Your task to perform on an android device: Add razer blade to the cart on target.com Image 0: 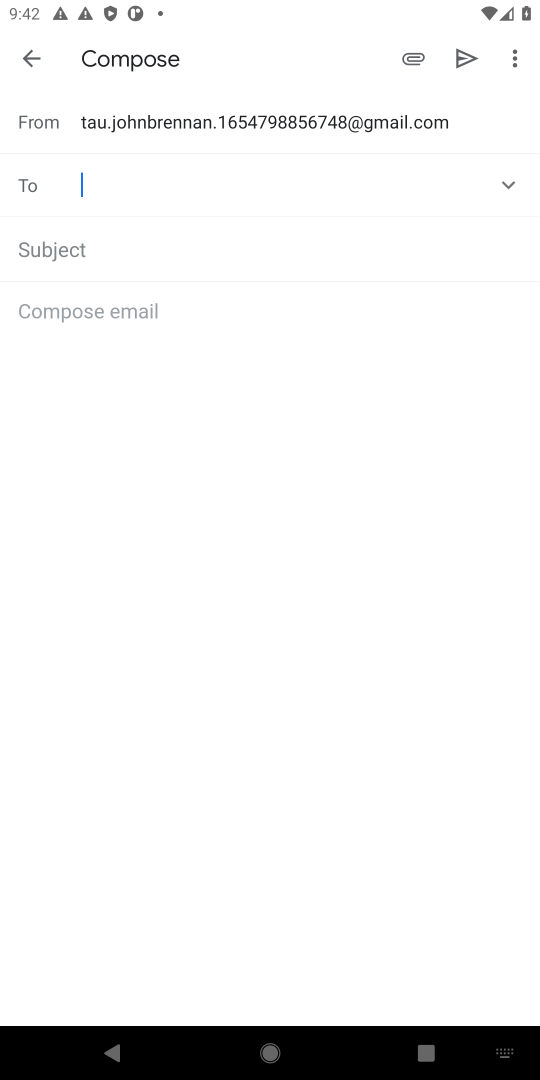
Step 0: press home button
Your task to perform on an android device: Add razer blade to the cart on target.com Image 1: 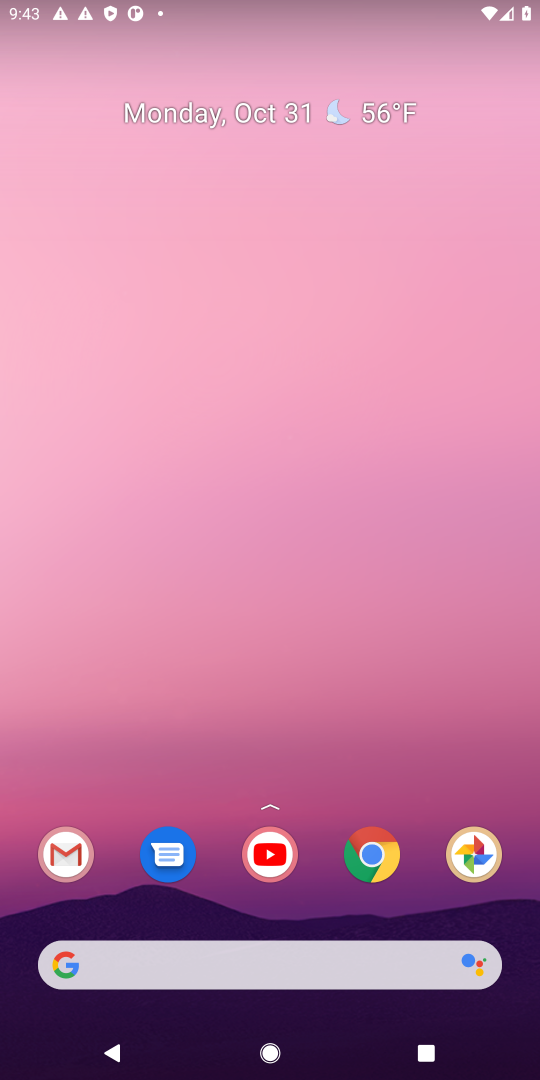
Step 1: click (281, 943)
Your task to perform on an android device: Add razer blade to the cart on target.com Image 2: 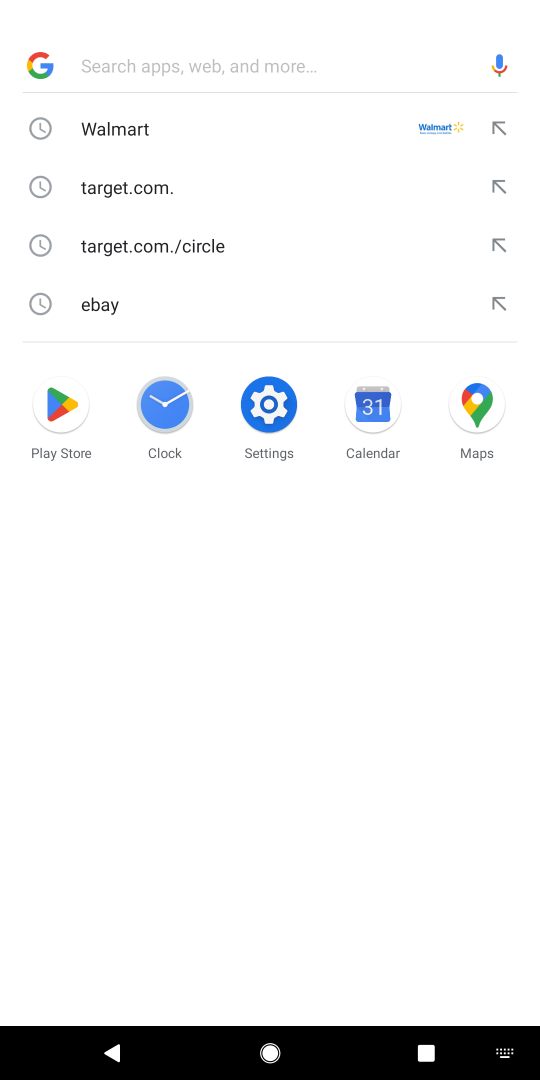
Step 2: type "razer blade"
Your task to perform on an android device: Add razer blade to the cart on target.com Image 3: 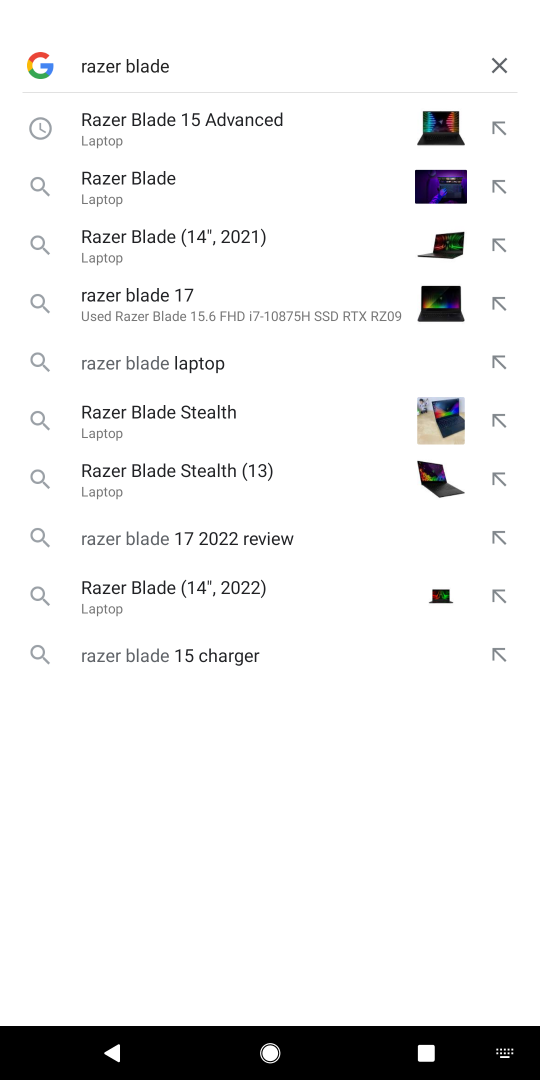
Step 3: click (162, 126)
Your task to perform on an android device: Add razer blade to the cart on target.com Image 4: 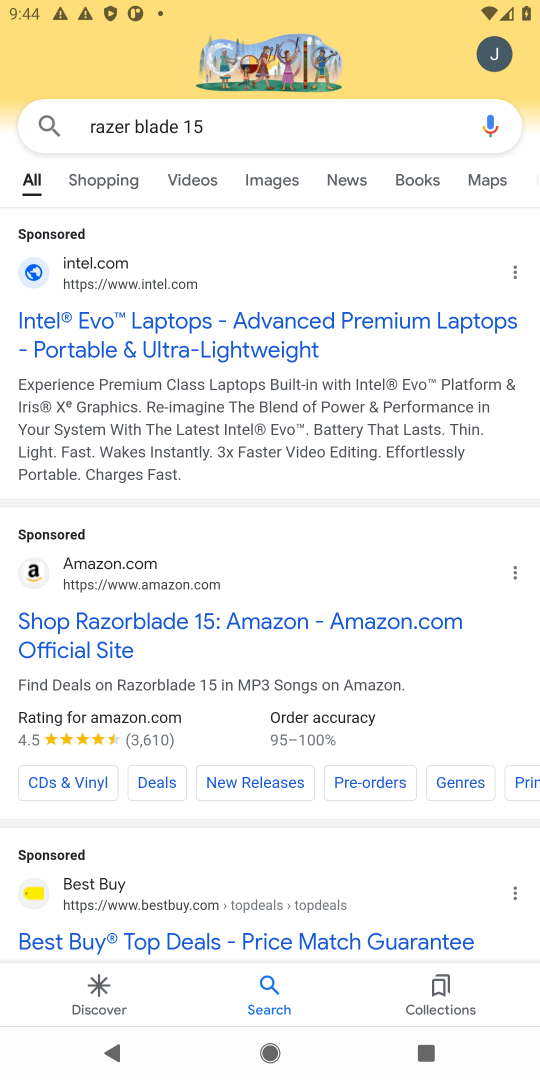
Step 4: click (78, 349)
Your task to perform on an android device: Add razer blade to the cart on target.com Image 5: 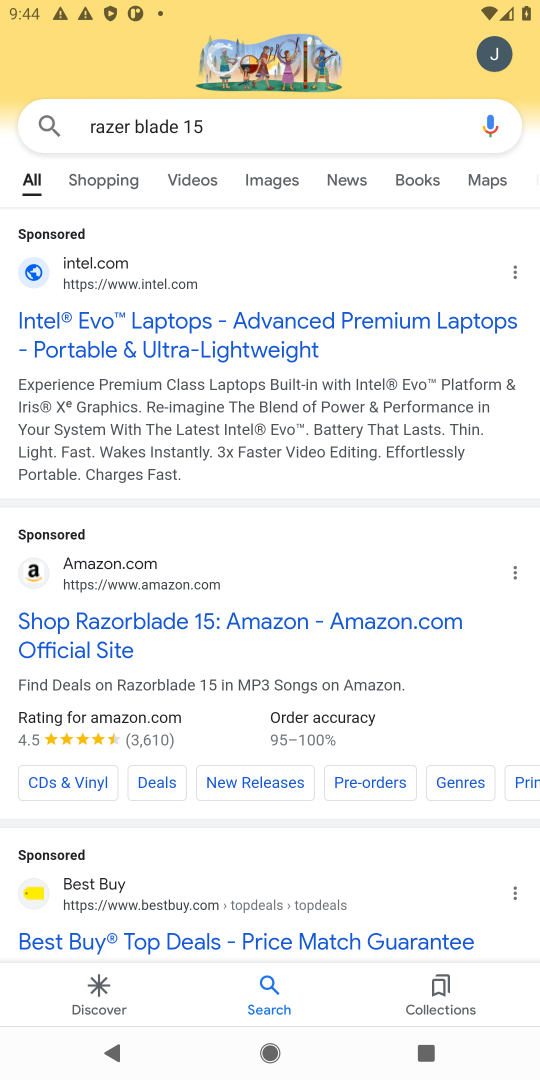
Step 5: task complete